Your task to perform on an android device: add a contact Image 0: 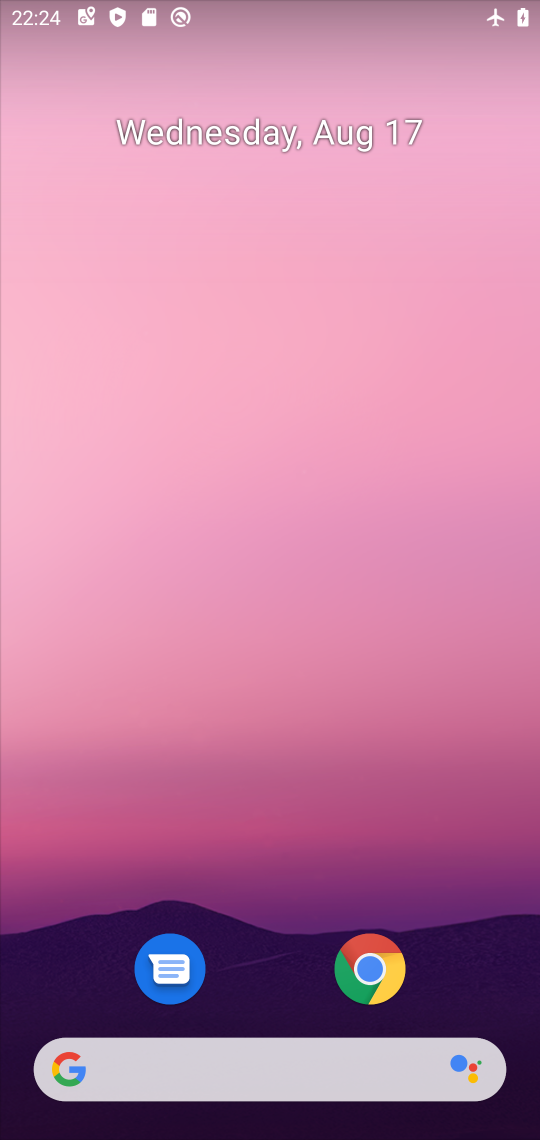
Step 0: drag from (263, 975) to (221, 344)
Your task to perform on an android device: add a contact Image 1: 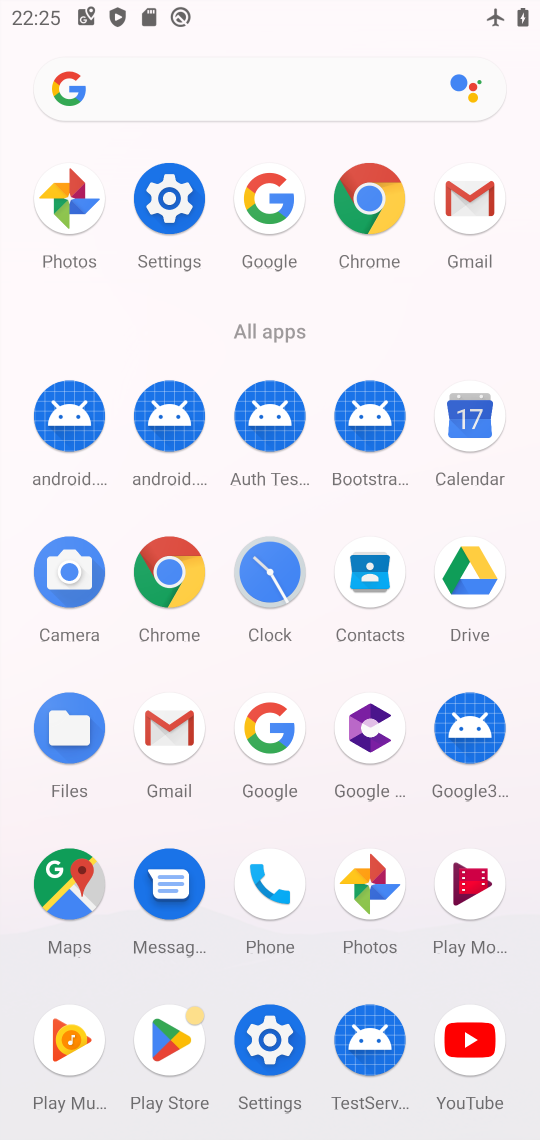
Step 1: click (361, 571)
Your task to perform on an android device: add a contact Image 2: 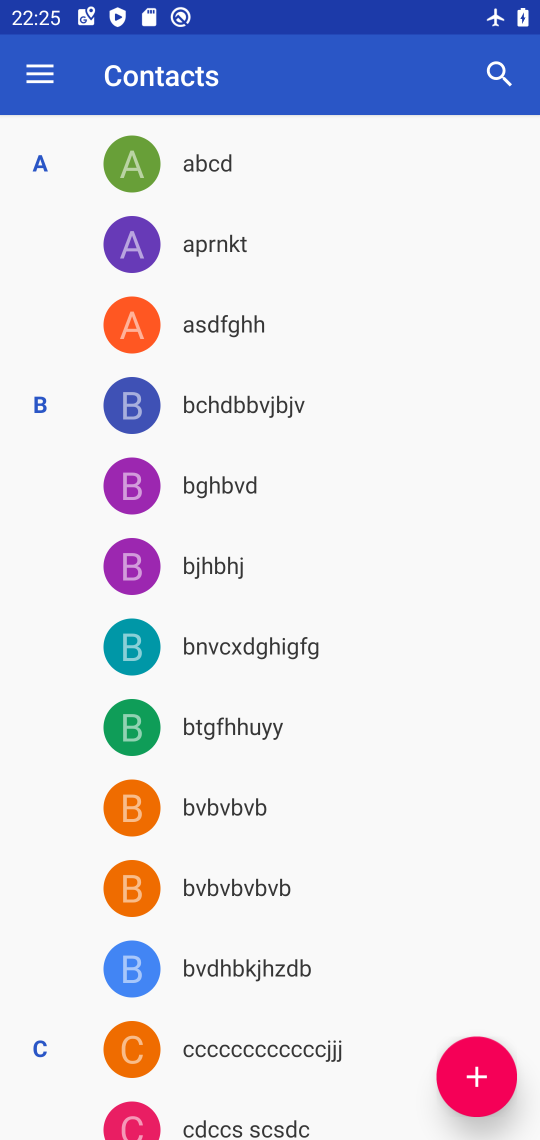
Step 2: click (472, 1081)
Your task to perform on an android device: add a contact Image 3: 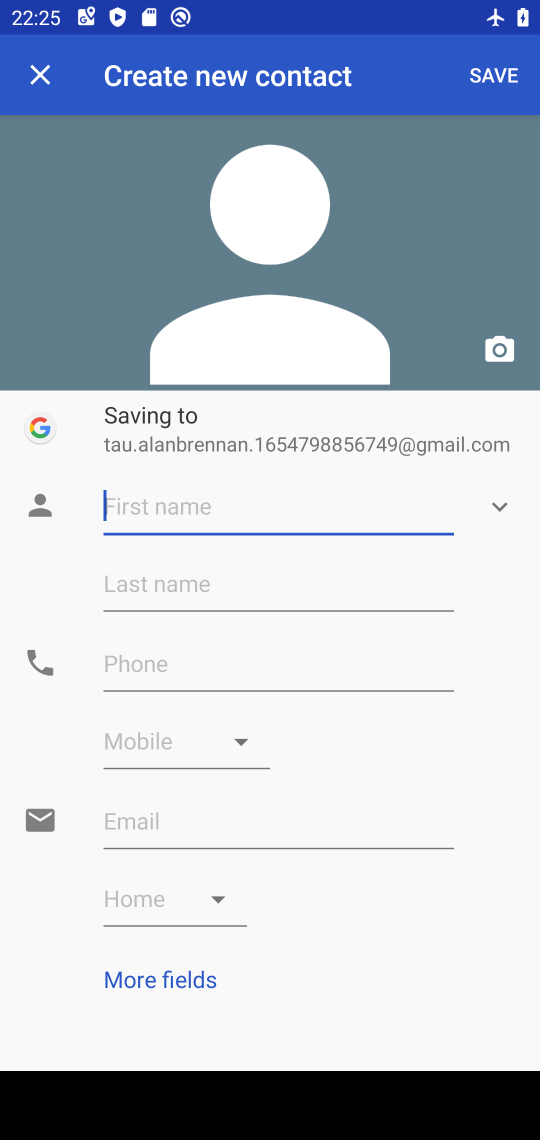
Step 3: type "xxx"
Your task to perform on an android device: add a contact Image 4: 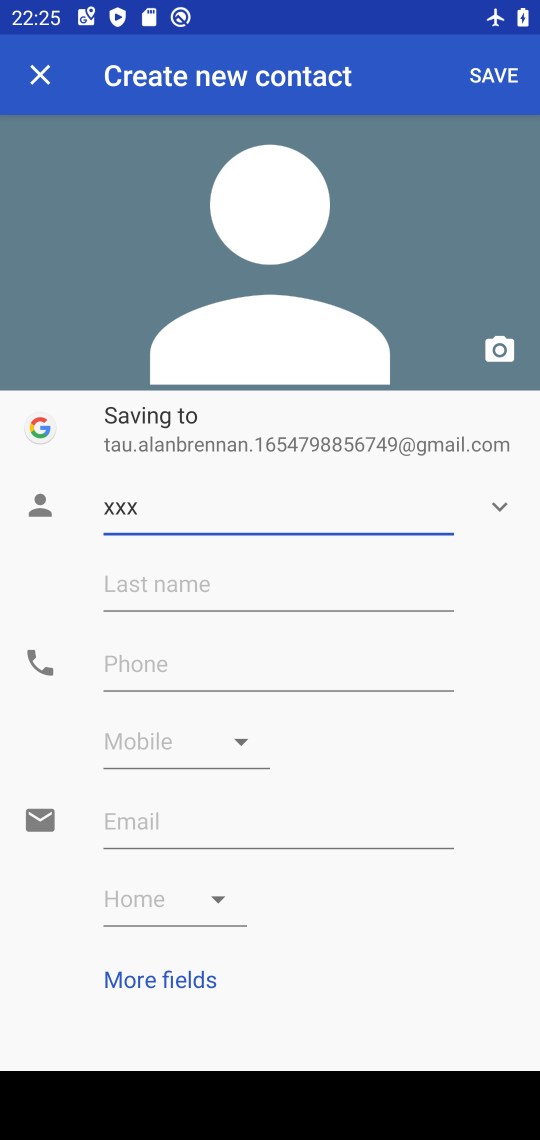
Step 4: click (161, 659)
Your task to perform on an android device: add a contact Image 5: 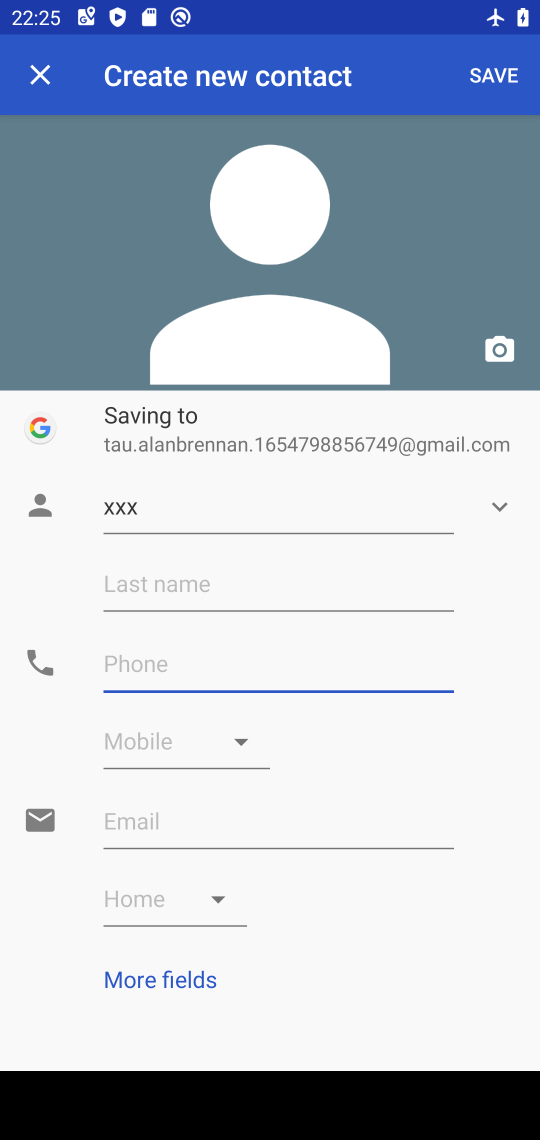
Step 5: type "222"
Your task to perform on an android device: add a contact Image 6: 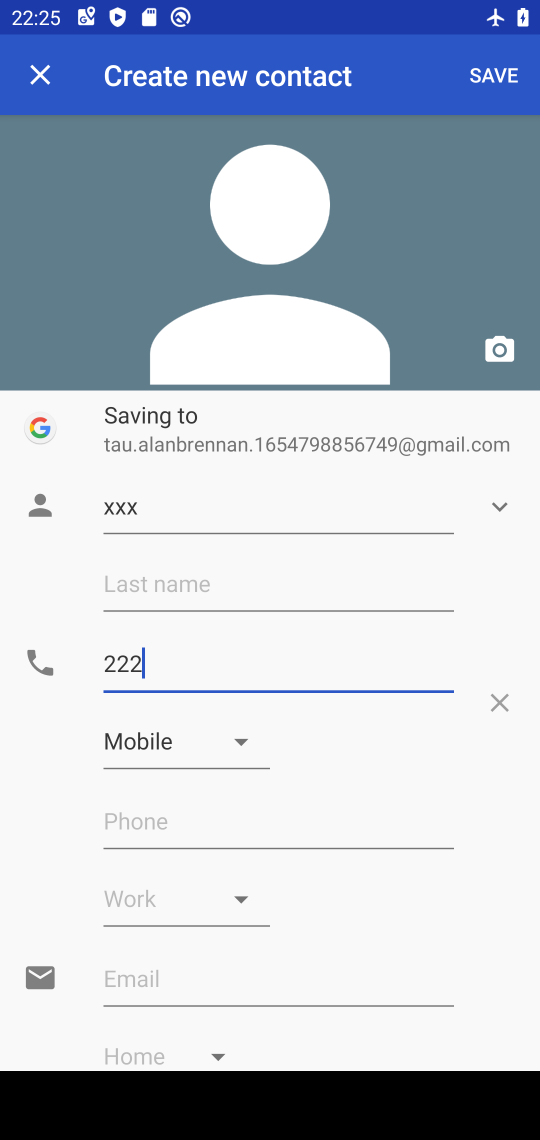
Step 6: click (492, 79)
Your task to perform on an android device: add a contact Image 7: 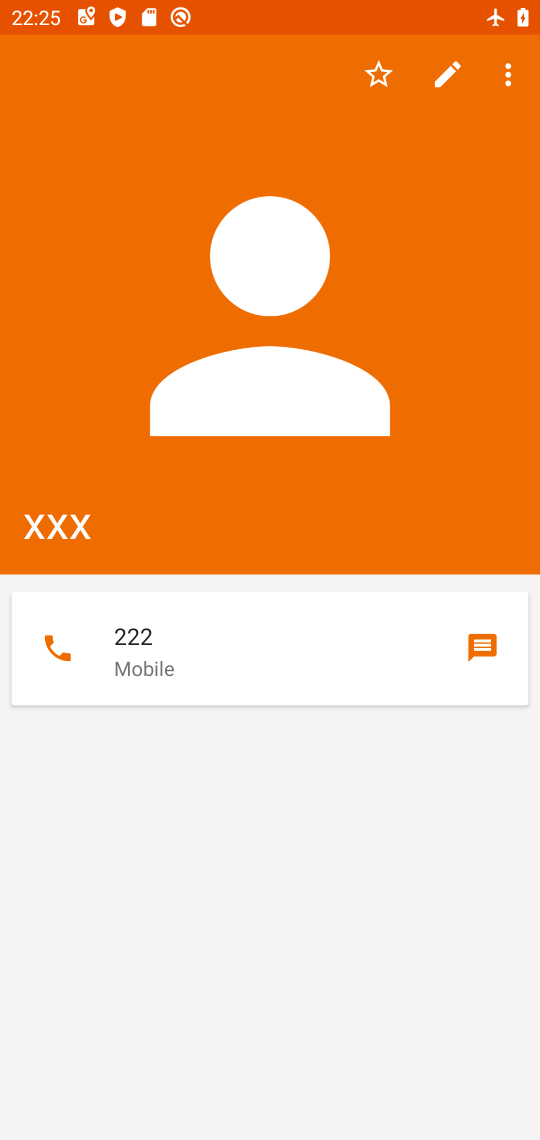
Step 7: task complete